Your task to perform on an android device: Open Google Maps Image 0: 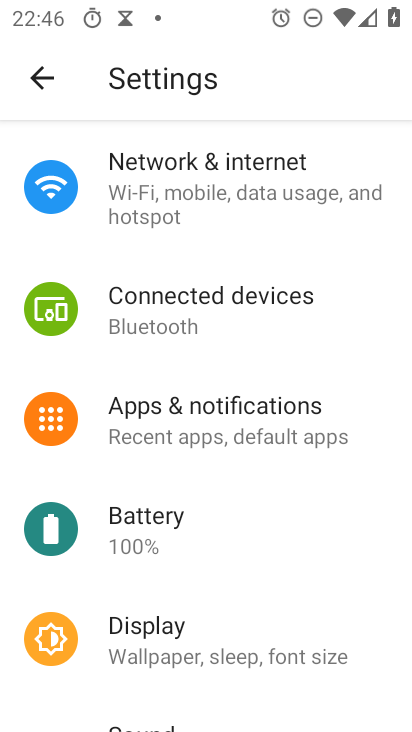
Step 0: press home button
Your task to perform on an android device: Open Google Maps Image 1: 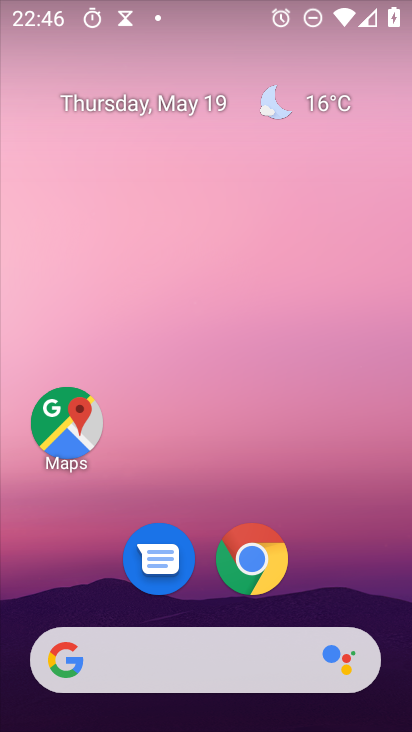
Step 1: drag from (211, 721) to (215, 133)
Your task to perform on an android device: Open Google Maps Image 2: 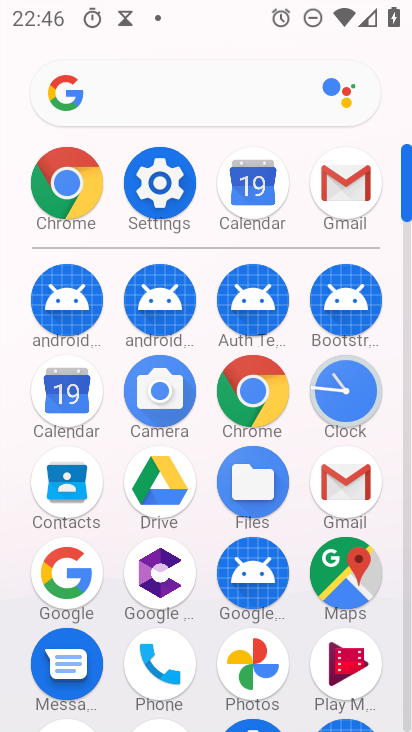
Step 2: click (342, 572)
Your task to perform on an android device: Open Google Maps Image 3: 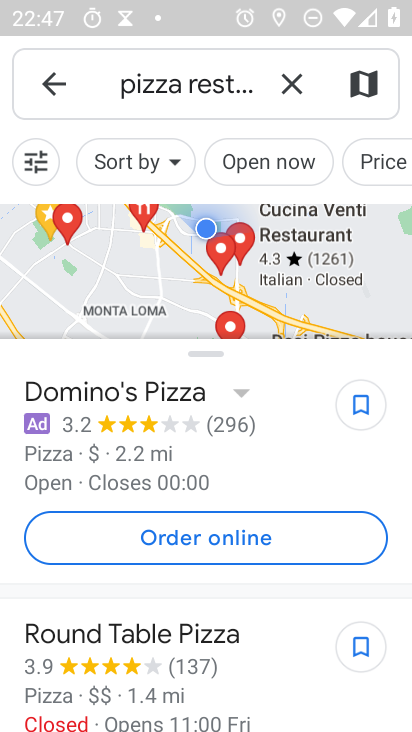
Step 3: task complete